Your task to perform on an android device: set an alarm Image 0: 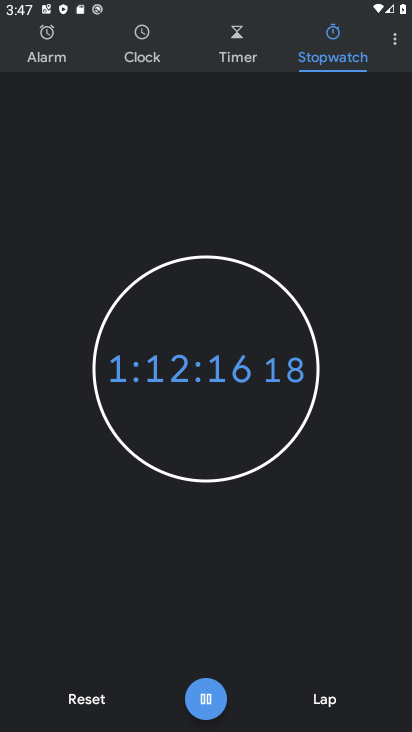
Step 0: press home button
Your task to perform on an android device: set an alarm Image 1: 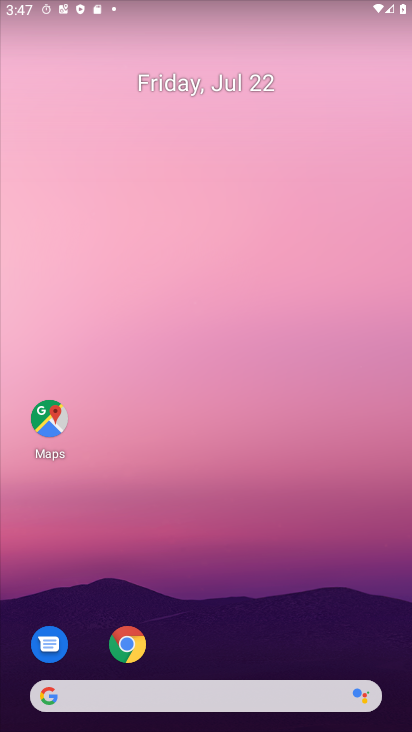
Step 1: drag from (216, 566) to (201, 47)
Your task to perform on an android device: set an alarm Image 2: 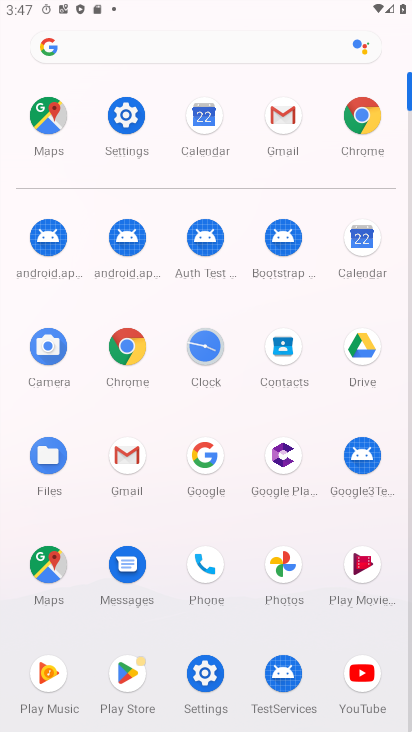
Step 2: click (207, 362)
Your task to perform on an android device: set an alarm Image 3: 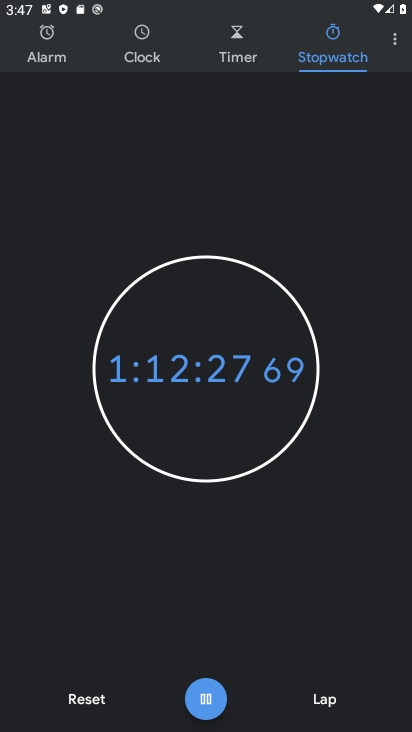
Step 3: click (43, 33)
Your task to perform on an android device: set an alarm Image 4: 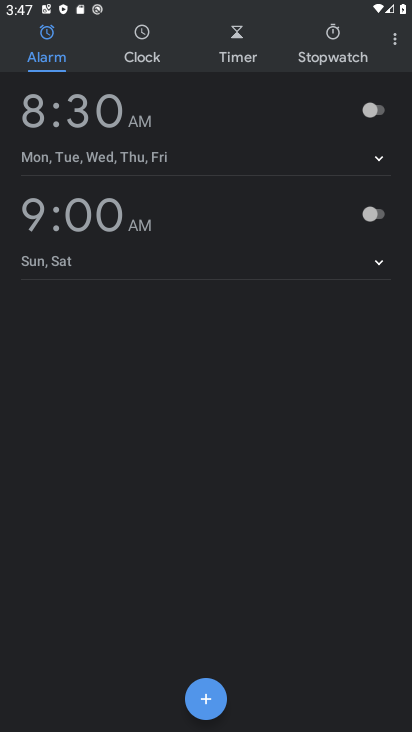
Step 4: click (371, 112)
Your task to perform on an android device: set an alarm Image 5: 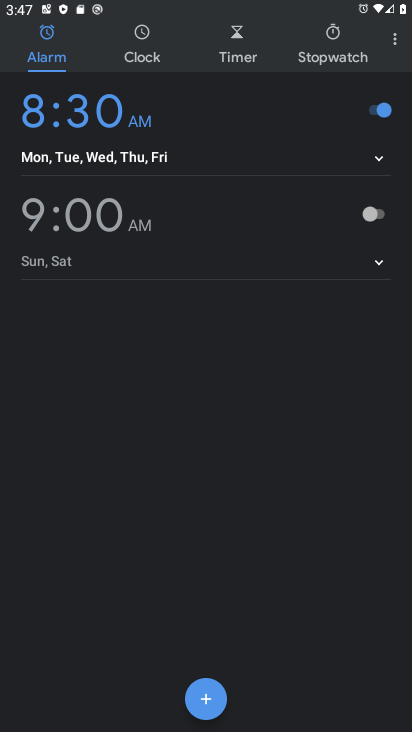
Step 5: task complete